Your task to perform on an android device: turn on translation in the chrome app Image 0: 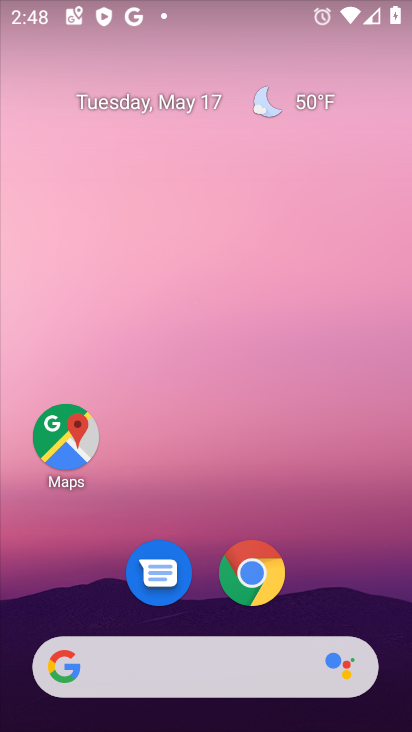
Step 0: click (262, 563)
Your task to perform on an android device: turn on translation in the chrome app Image 1: 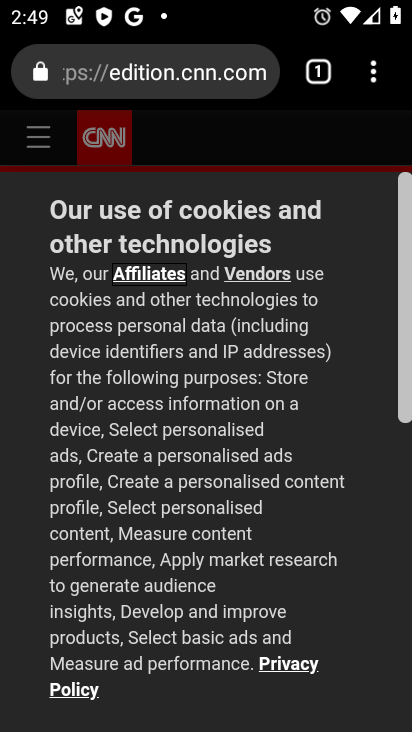
Step 1: drag from (384, 63) to (149, 568)
Your task to perform on an android device: turn on translation in the chrome app Image 2: 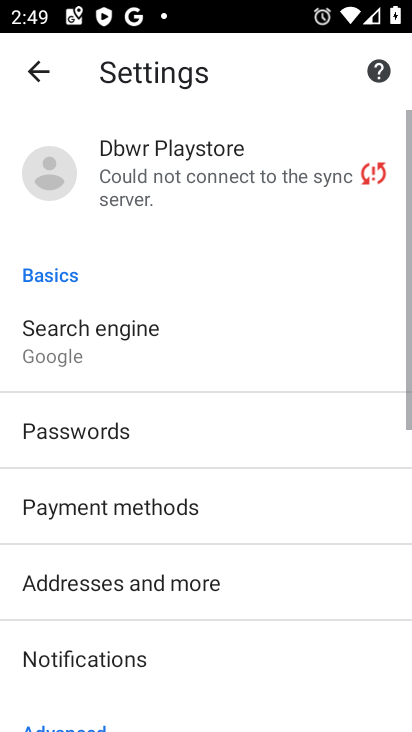
Step 2: drag from (157, 606) to (267, 116)
Your task to perform on an android device: turn on translation in the chrome app Image 3: 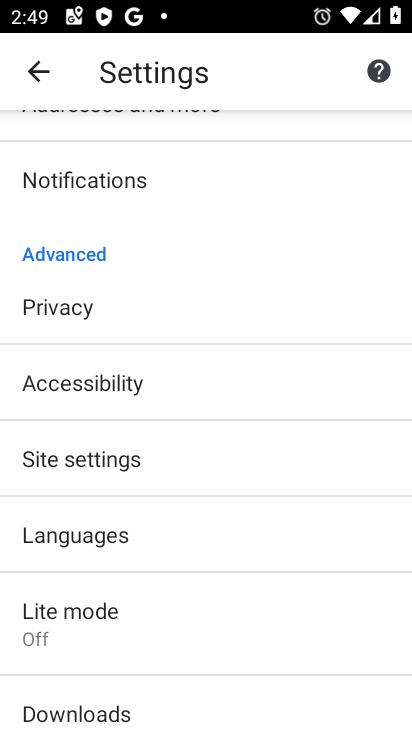
Step 3: click (130, 541)
Your task to perform on an android device: turn on translation in the chrome app Image 4: 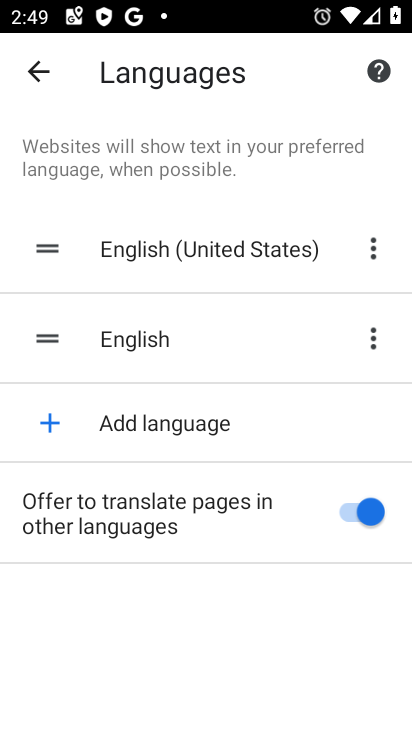
Step 4: task complete